Your task to perform on an android device: see tabs open on other devices in the chrome app Image 0: 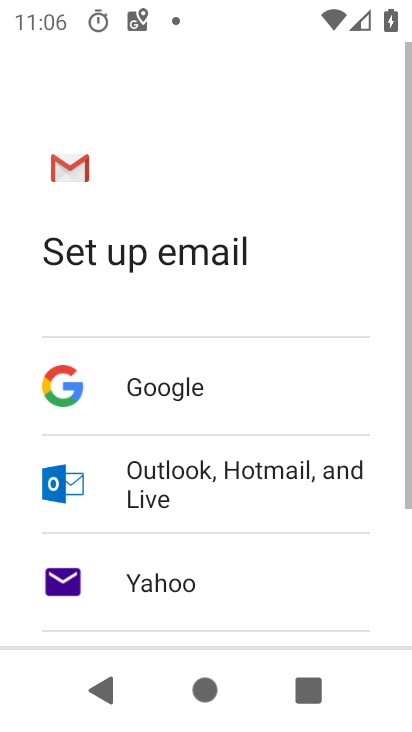
Step 0: press back button
Your task to perform on an android device: see tabs open on other devices in the chrome app Image 1: 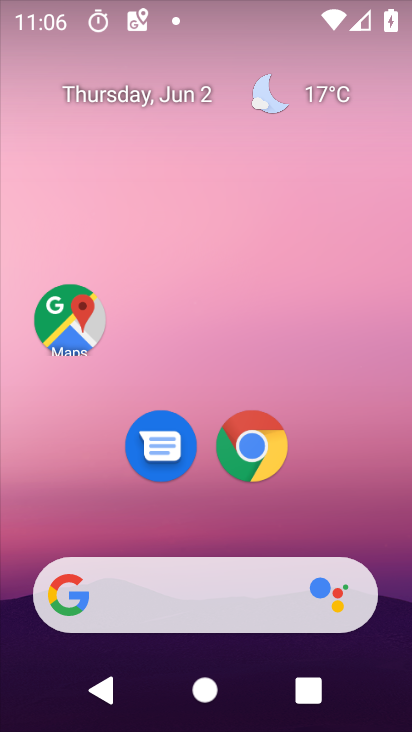
Step 1: drag from (342, 480) to (351, 176)
Your task to perform on an android device: see tabs open on other devices in the chrome app Image 2: 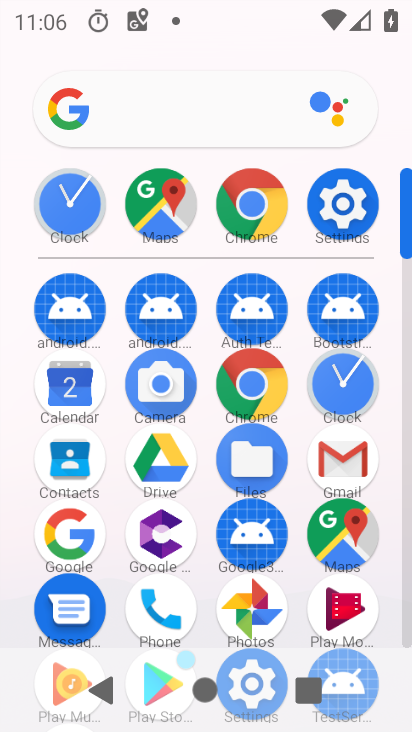
Step 2: click (256, 395)
Your task to perform on an android device: see tabs open on other devices in the chrome app Image 3: 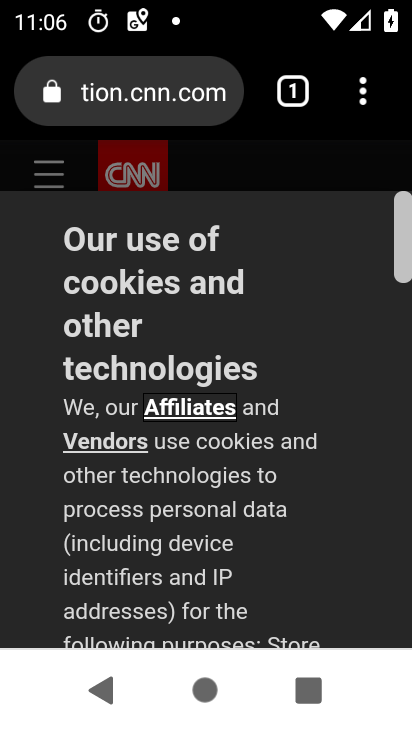
Step 3: click (364, 98)
Your task to perform on an android device: see tabs open on other devices in the chrome app Image 4: 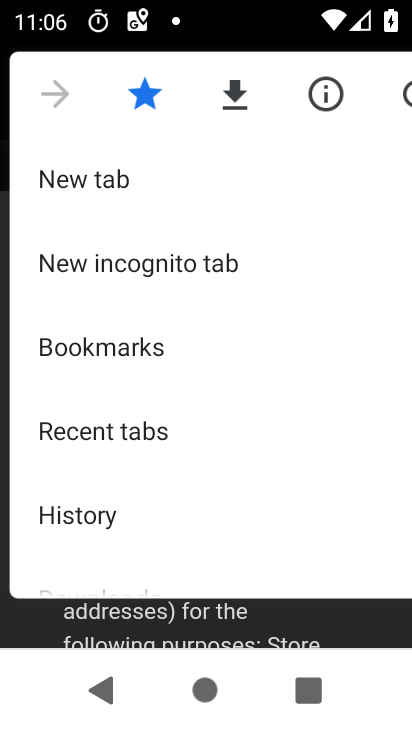
Step 4: click (154, 438)
Your task to perform on an android device: see tabs open on other devices in the chrome app Image 5: 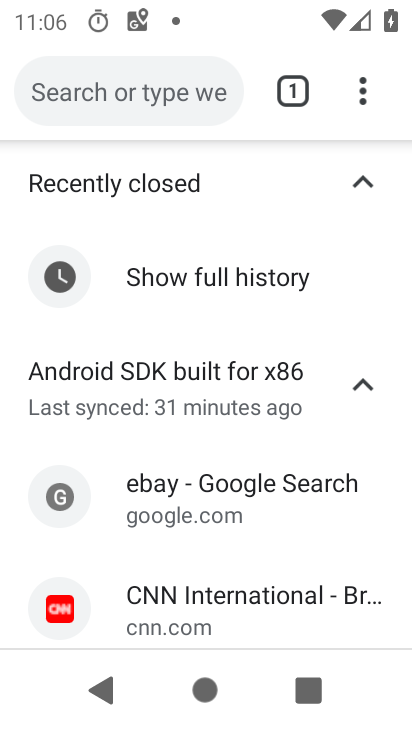
Step 5: click (297, 108)
Your task to perform on an android device: see tabs open on other devices in the chrome app Image 6: 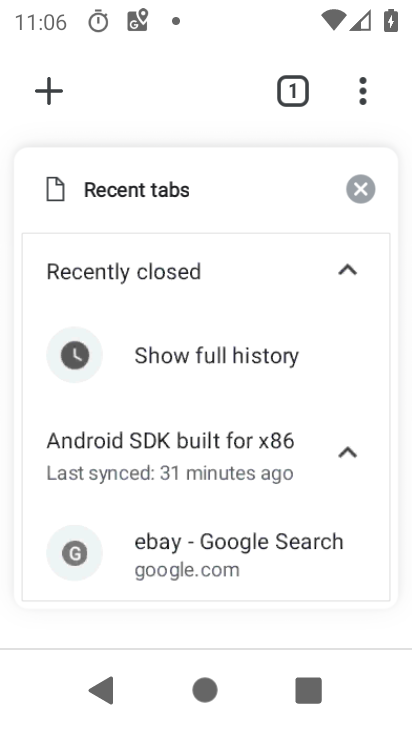
Step 6: task complete